Your task to perform on an android device: Do I have any events this weekend? Image 0: 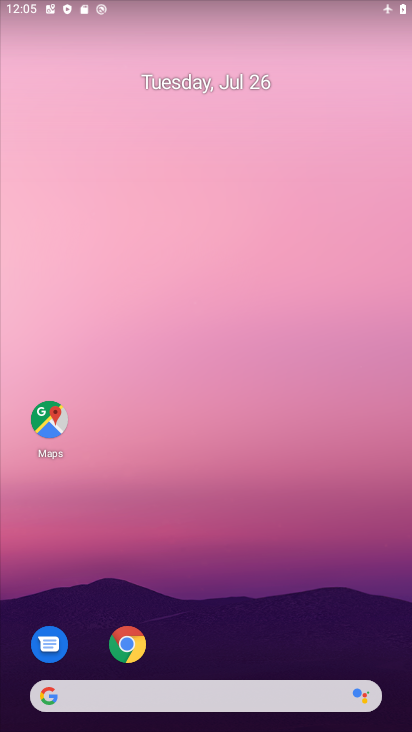
Step 0: drag from (243, 670) to (280, 107)
Your task to perform on an android device: Do I have any events this weekend? Image 1: 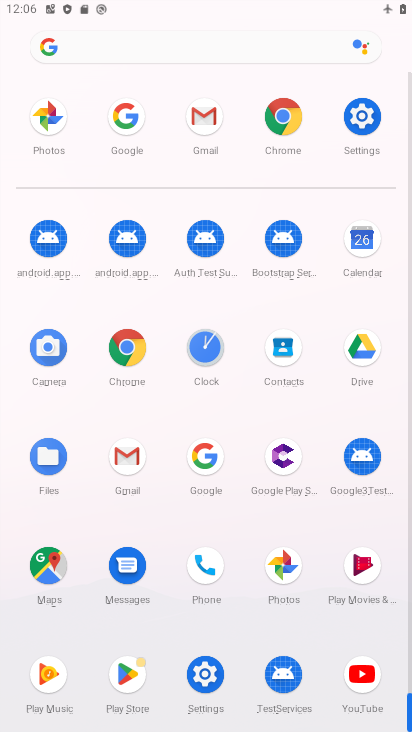
Step 1: click (350, 250)
Your task to perform on an android device: Do I have any events this weekend? Image 2: 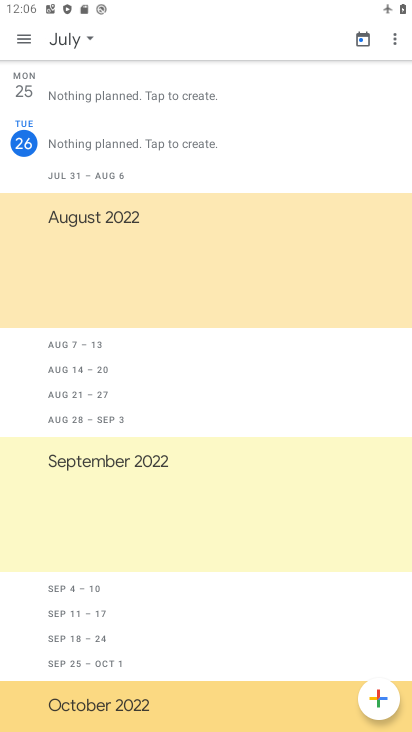
Step 2: click (82, 48)
Your task to perform on an android device: Do I have any events this weekend? Image 3: 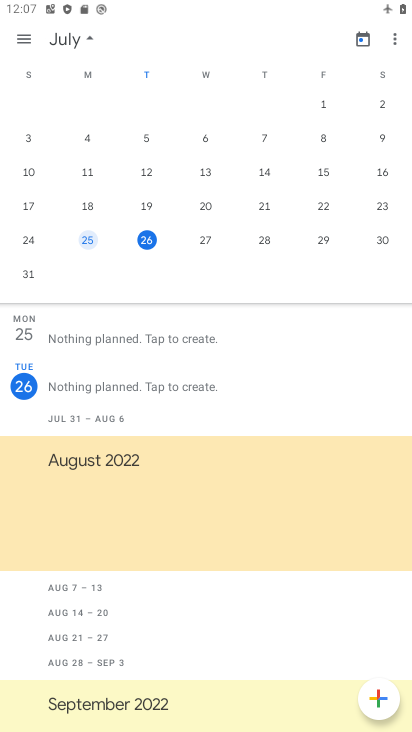
Step 3: click (381, 249)
Your task to perform on an android device: Do I have any events this weekend? Image 4: 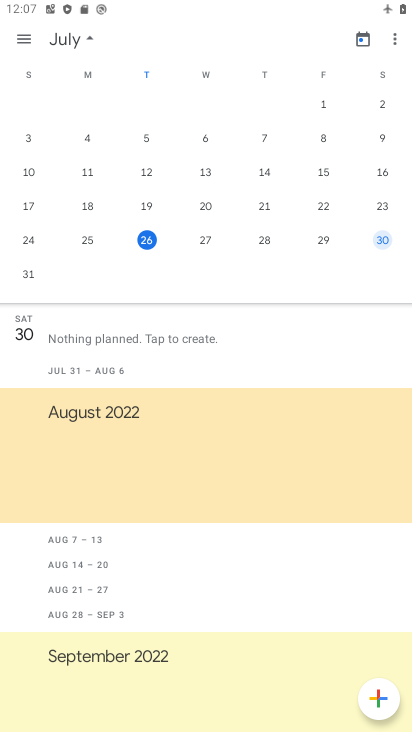
Step 4: task complete